Your task to perform on an android device: Open Chrome and go to the settings page Image 0: 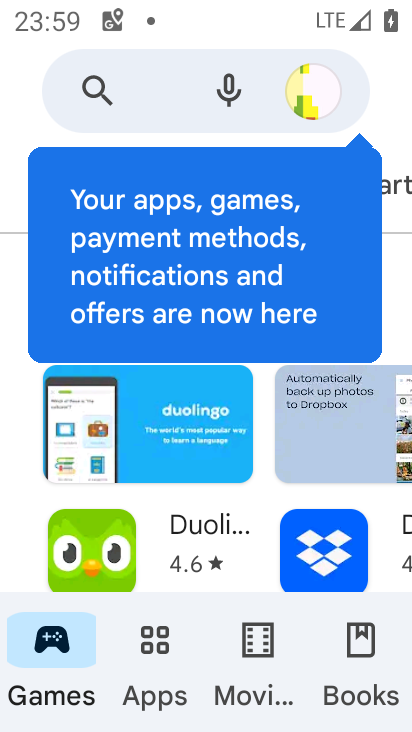
Step 0: press back button
Your task to perform on an android device: Open Chrome and go to the settings page Image 1: 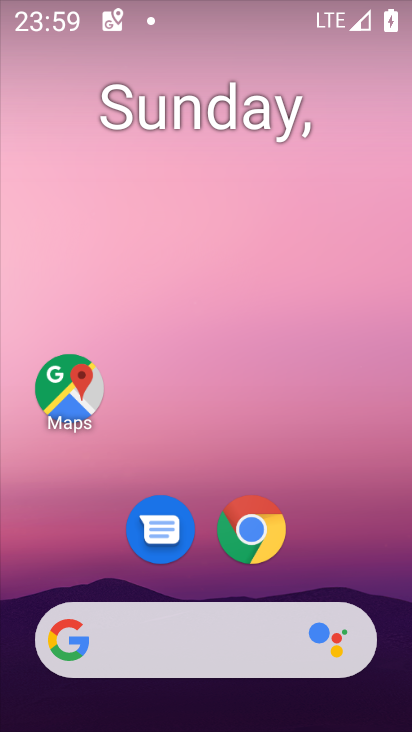
Step 1: click (254, 531)
Your task to perform on an android device: Open Chrome and go to the settings page Image 2: 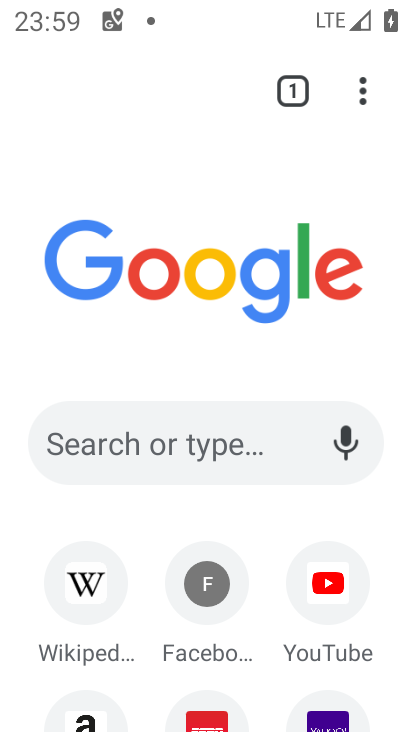
Step 2: click (363, 92)
Your task to perform on an android device: Open Chrome and go to the settings page Image 3: 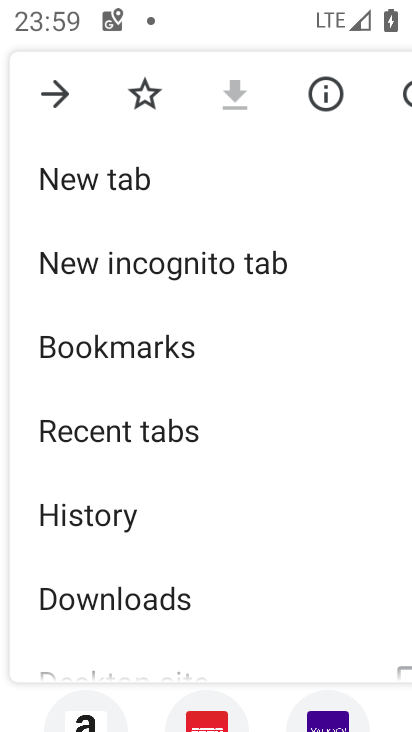
Step 3: drag from (149, 536) to (203, 410)
Your task to perform on an android device: Open Chrome and go to the settings page Image 4: 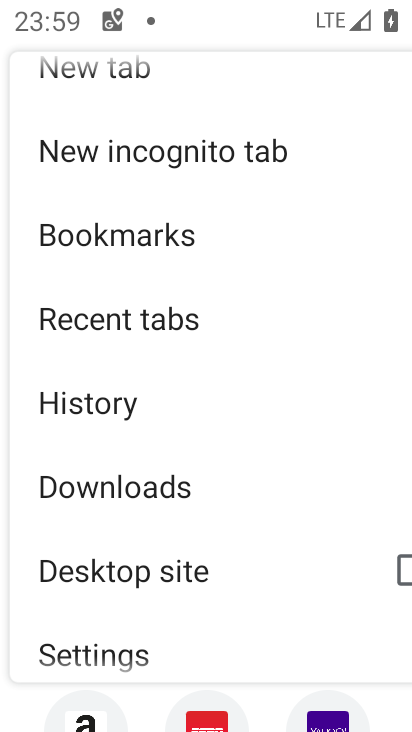
Step 4: drag from (127, 535) to (207, 424)
Your task to perform on an android device: Open Chrome and go to the settings page Image 5: 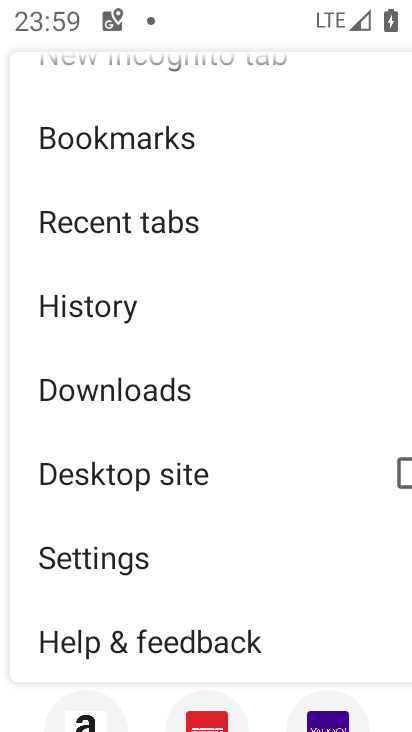
Step 5: click (116, 552)
Your task to perform on an android device: Open Chrome and go to the settings page Image 6: 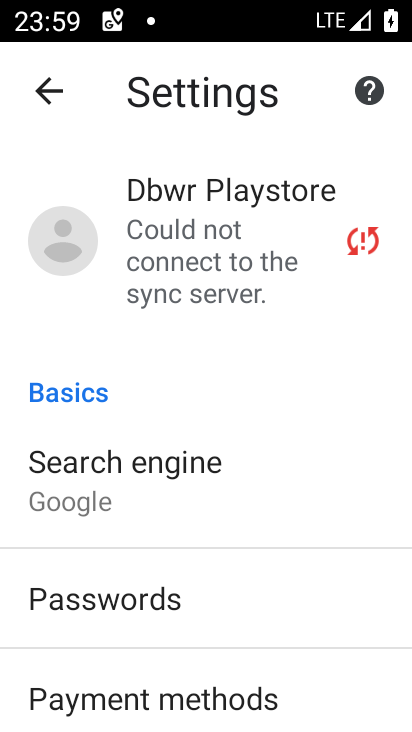
Step 6: task complete